Your task to perform on an android device: open chrome privacy settings Image 0: 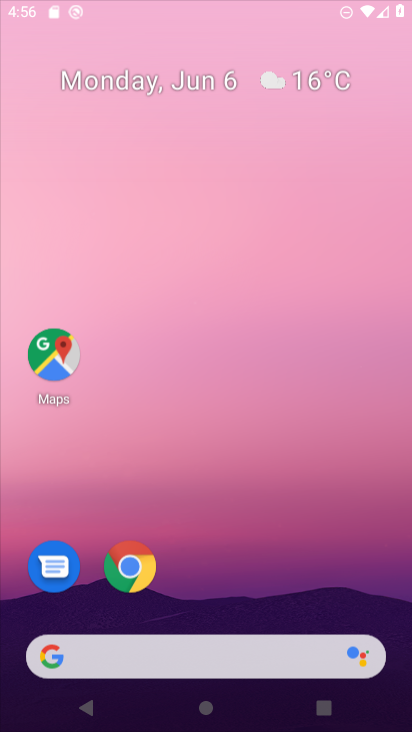
Step 0: click (94, 145)
Your task to perform on an android device: open chrome privacy settings Image 1: 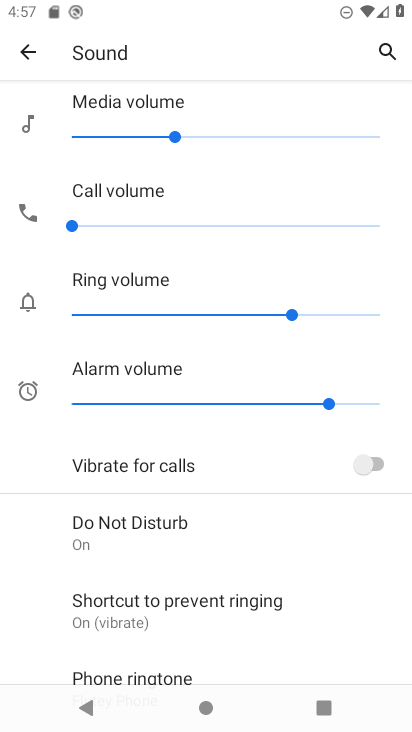
Step 1: click (28, 55)
Your task to perform on an android device: open chrome privacy settings Image 2: 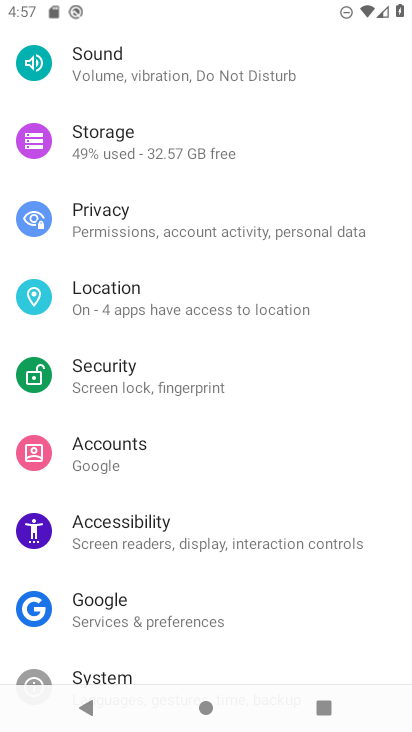
Step 2: press back button
Your task to perform on an android device: open chrome privacy settings Image 3: 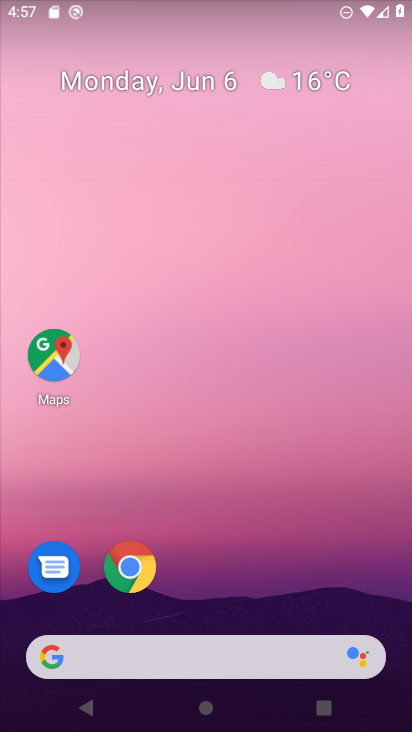
Step 3: drag from (252, 709) to (230, 177)
Your task to perform on an android device: open chrome privacy settings Image 4: 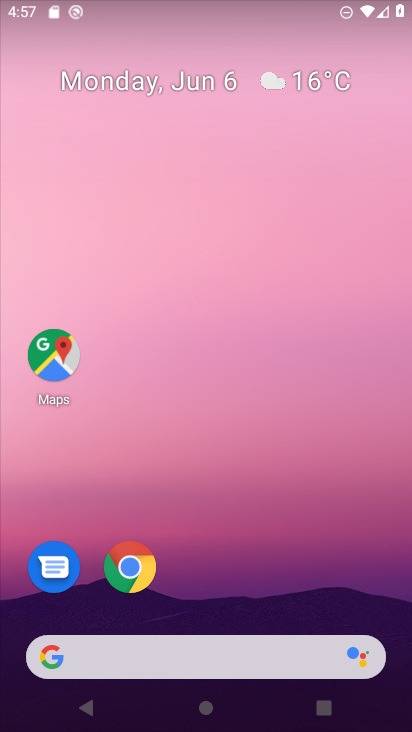
Step 4: click (225, 298)
Your task to perform on an android device: open chrome privacy settings Image 5: 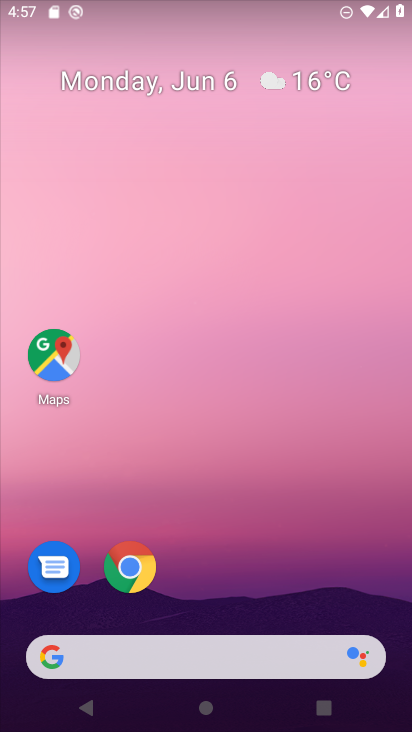
Step 5: drag from (258, 694) to (104, 280)
Your task to perform on an android device: open chrome privacy settings Image 6: 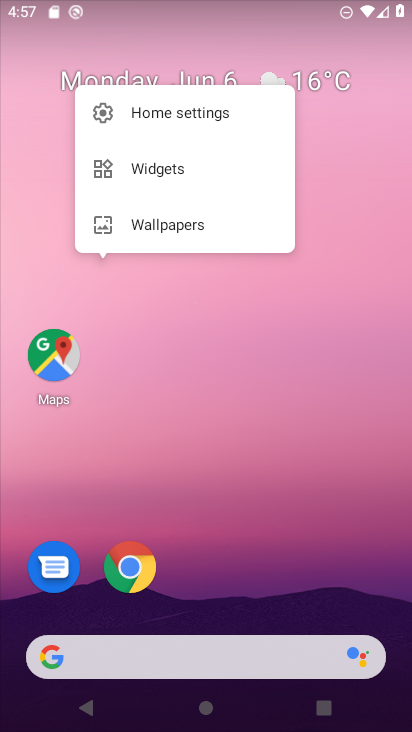
Step 6: drag from (235, 706) to (64, 81)
Your task to perform on an android device: open chrome privacy settings Image 7: 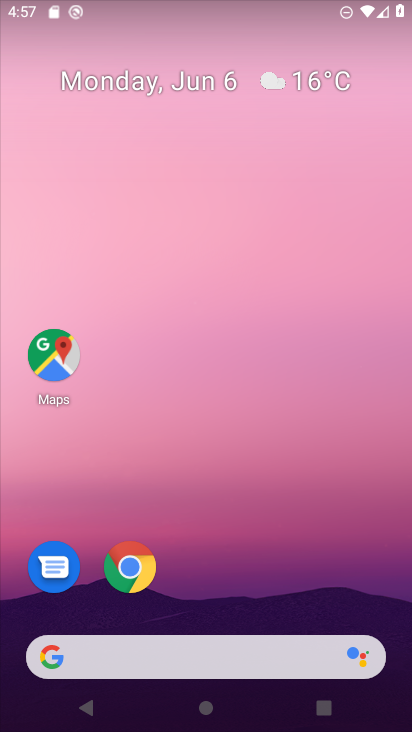
Step 7: drag from (232, 573) to (110, 23)
Your task to perform on an android device: open chrome privacy settings Image 8: 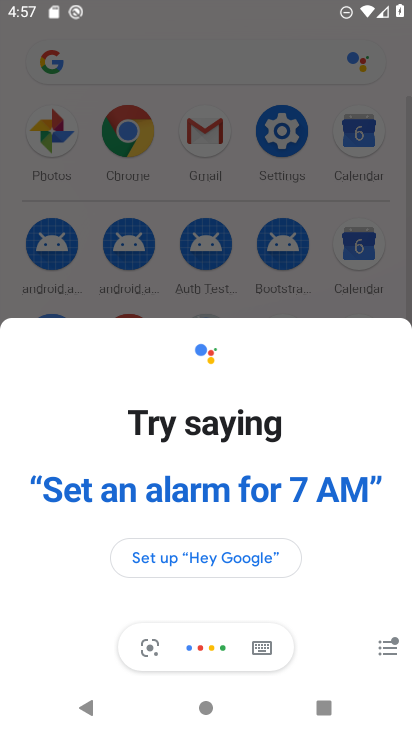
Step 8: click (224, 94)
Your task to perform on an android device: open chrome privacy settings Image 9: 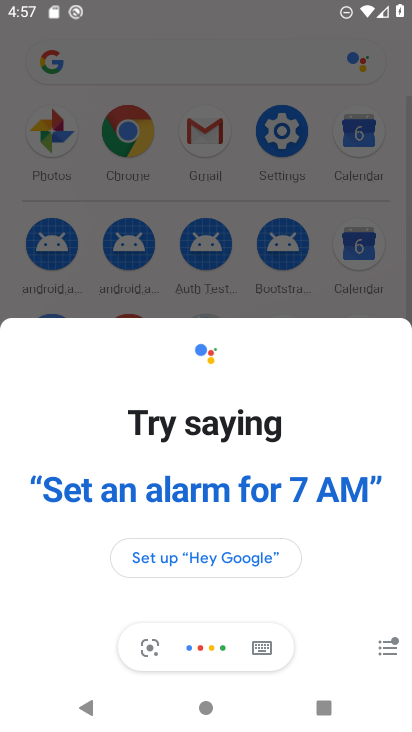
Step 9: click (235, 103)
Your task to perform on an android device: open chrome privacy settings Image 10: 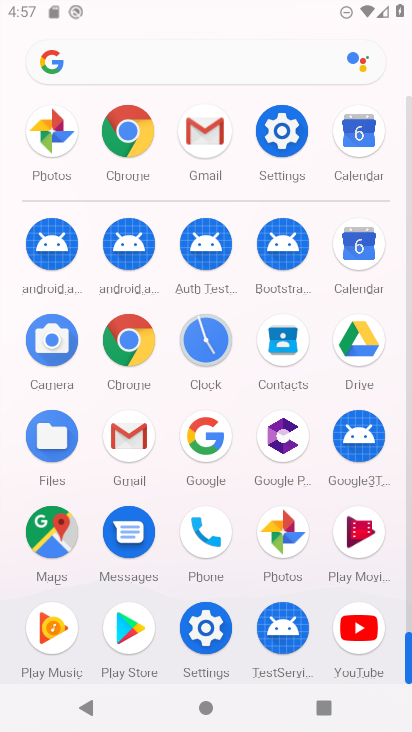
Step 10: click (235, 103)
Your task to perform on an android device: open chrome privacy settings Image 11: 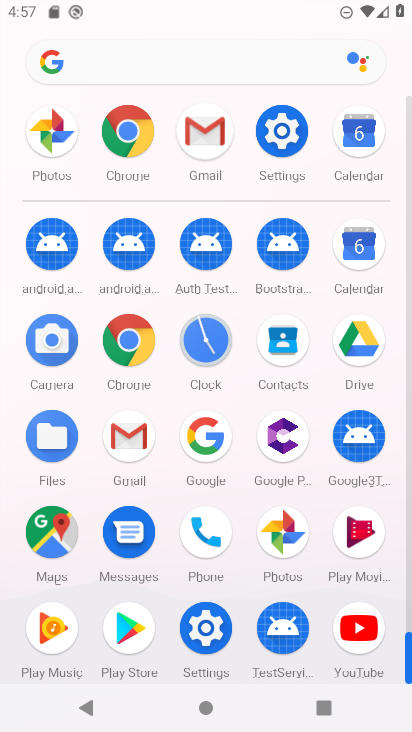
Step 11: click (236, 103)
Your task to perform on an android device: open chrome privacy settings Image 12: 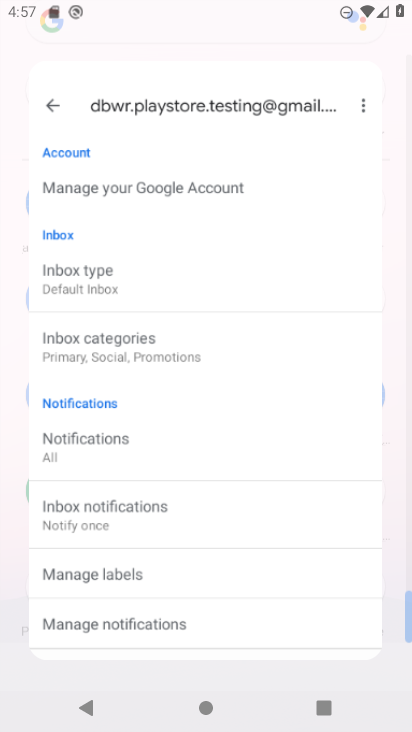
Step 12: click (238, 100)
Your task to perform on an android device: open chrome privacy settings Image 13: 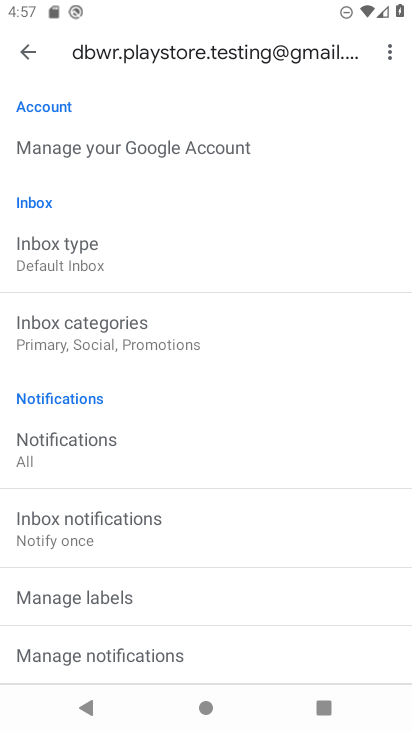
Step 13: click (6, 39)
Your task to perform on an android device: open chrome privacy settings Image 14: 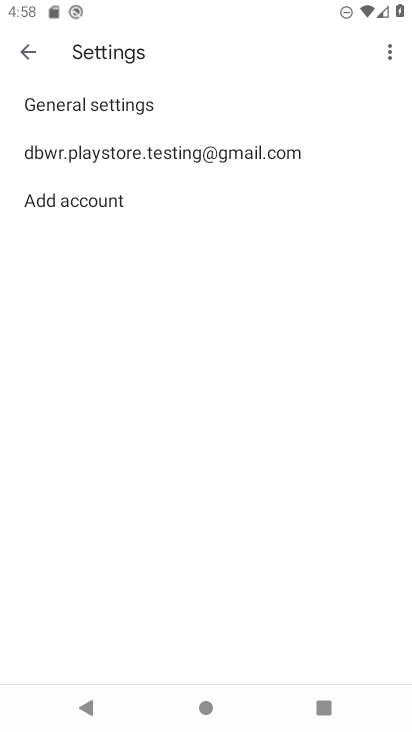
Step 14: click (31, 46)
Your task to perform on an android device: open chrome privacy settings Image 15: 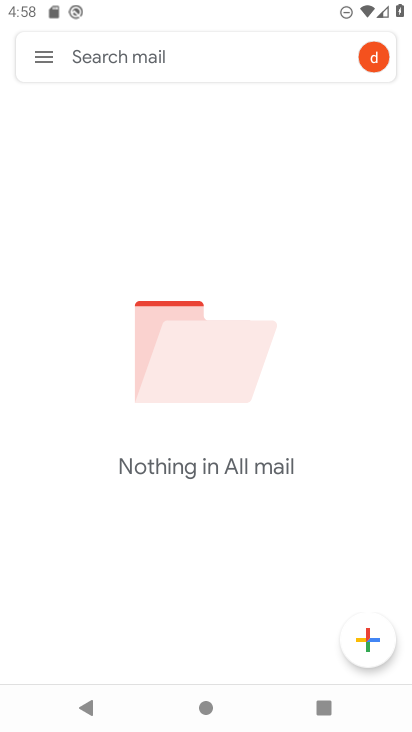
Step 15: press back button
Your task to perform on an android device: open chrome privacy settings Image 16: 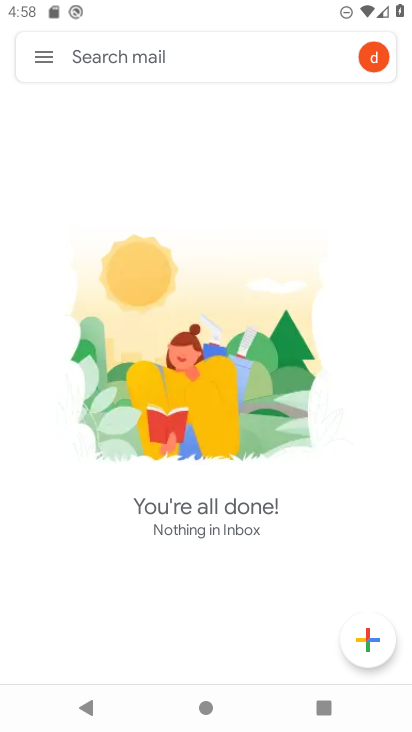
Step 16: press home button
Your task to perform on an android device: open chrome privacy settings Image 17: 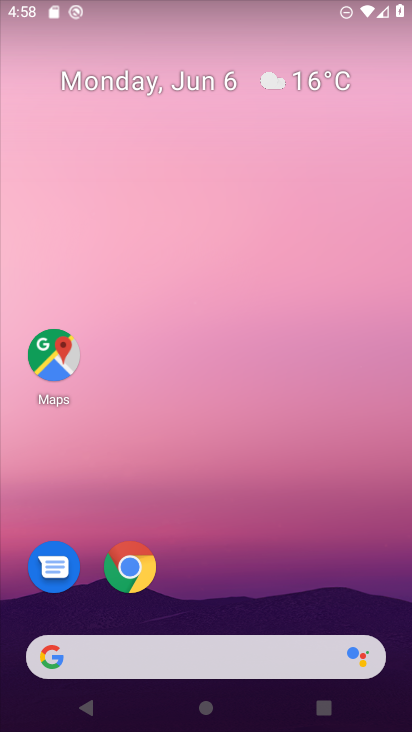
Step 17: drag from (214, 675) to (137, 170)
Your task to perform on an android device: open chrome privacy settings Image 18: 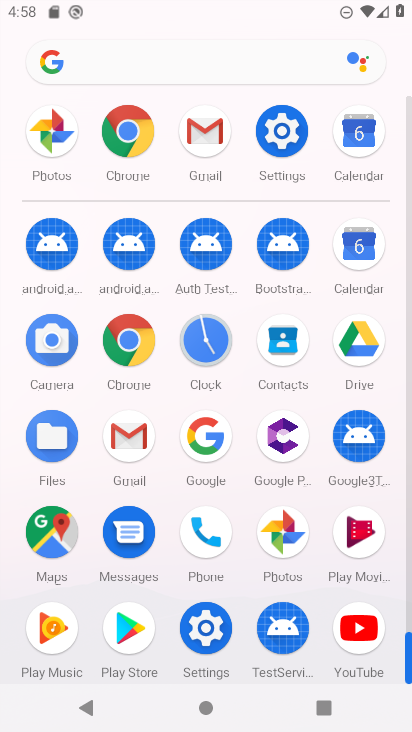
Step 18: click (273, 223)
Your task to perform on an android device: open chrome privacy settings Image 19: 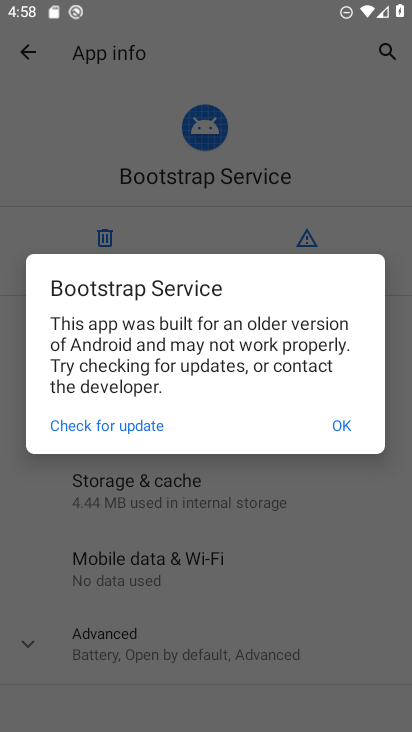
Step 19: click (339, 428)
Your task to perform on an android device: open chrome privacy settings Image 20: 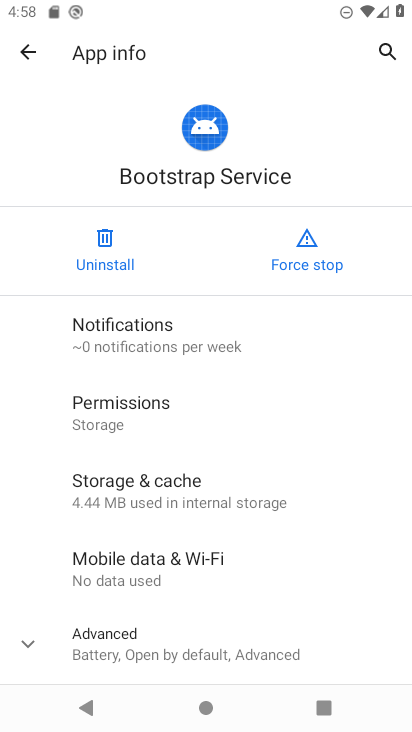
Step 20: click (23, 60)
Your task to perform on an android device: open chrome privacy settings Image 21: 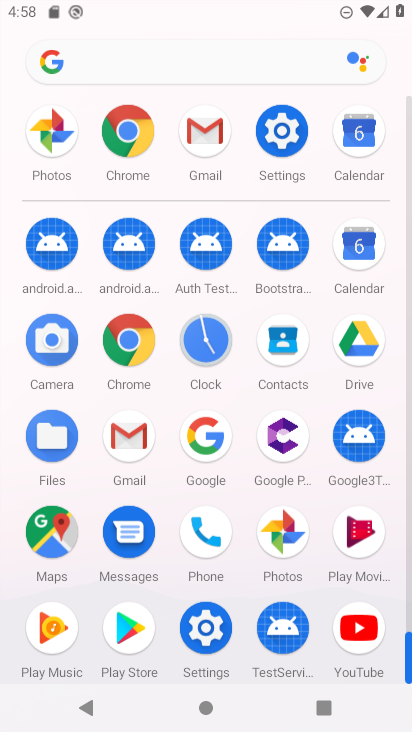
Step 21: click (19, 55)
Your task to perform on an android device: open chrome privacy settings Image 22: 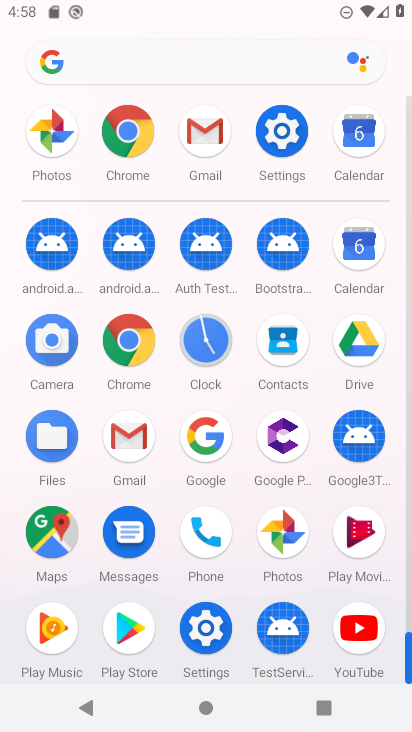
Step 22: click (270, 142)
Your task to perform on an android device: open chrome privacy settings Image 23: 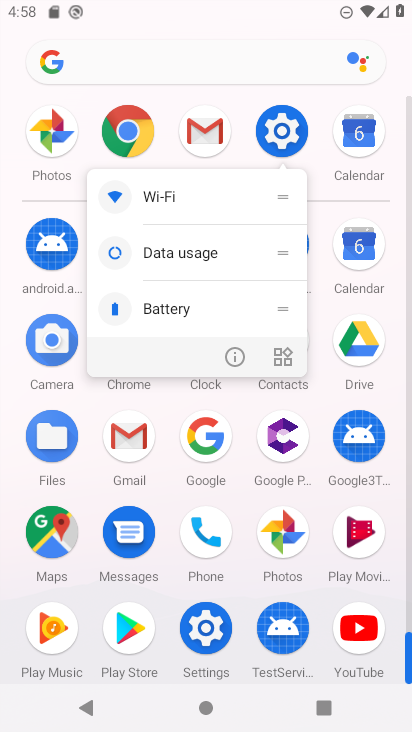
Step 23: click (271, 142)
Your task to perform on an android device: open chrome privacy settings Image 24: 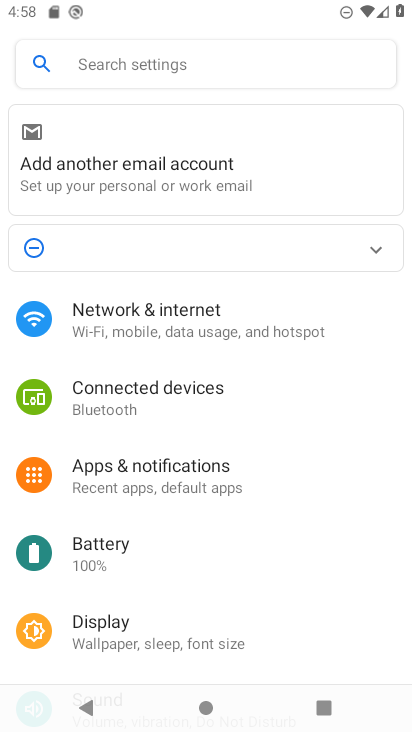
Step 24: press home button
Your task to perform on an android device: open chrome privacy settings Image 25: 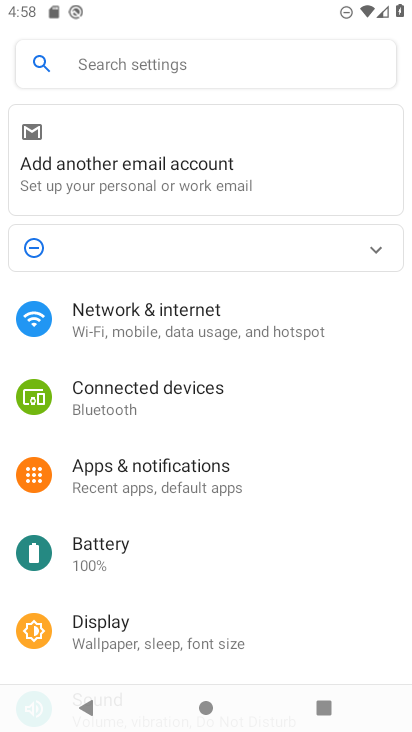
Step 25: press back button
Your task to perform on an android device: open chrome privacy settings Image 26: 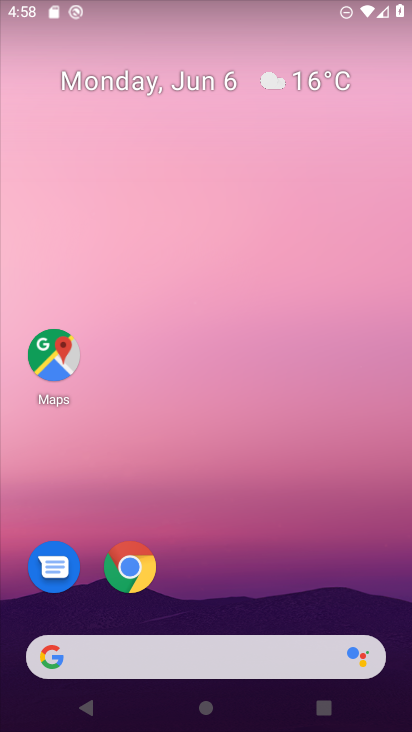
Step 26: press back button
Your task to perform on an android device: open chrome privacy settings Image 27: 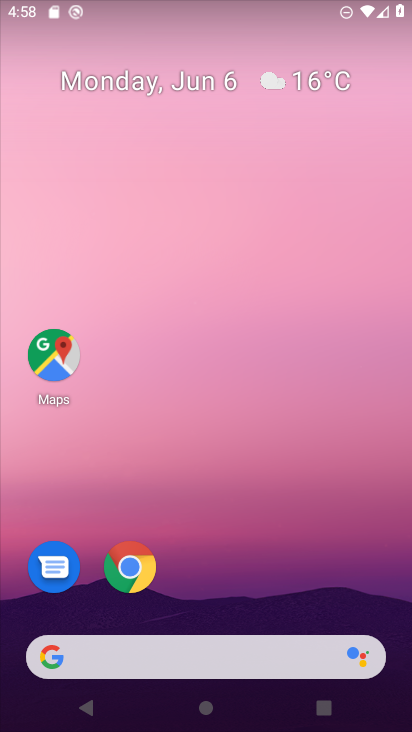
Step 27: drag from (203, 508) to (100, 169)
Your task to perform on an android device: open chrome privacy settings Image 28: 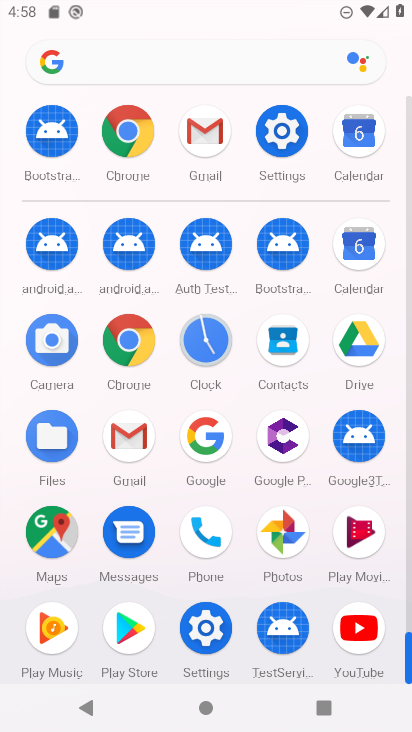
Step 28: click (120, 137)
Your task to perform on an android device: open chrome privacy settings Image 29: 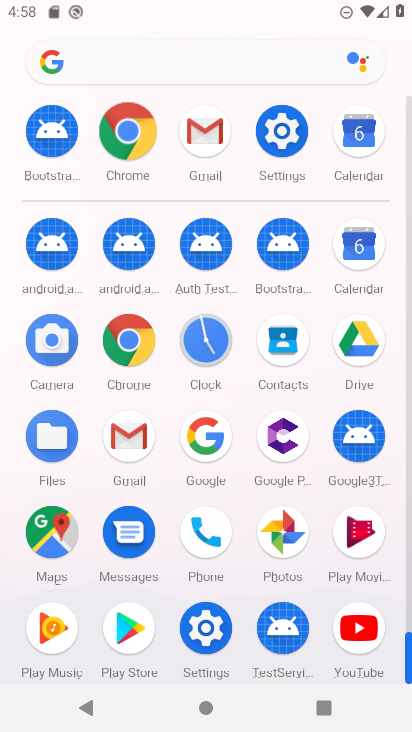
Step 29: click (119, 136)
Your task to perform on an android device: open chrome privacy settings Image 30: 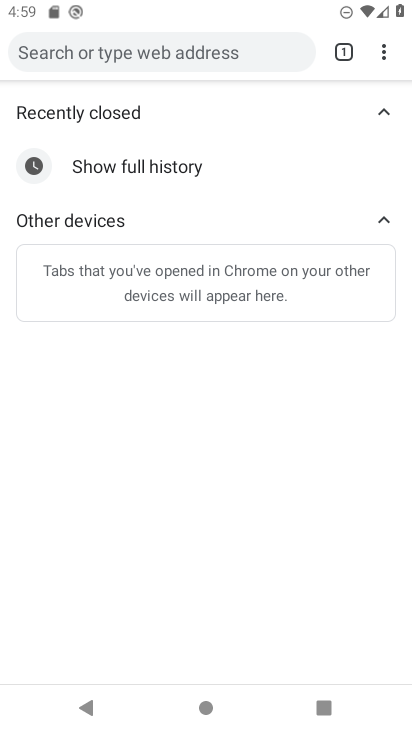
Step 30: task complete